Your task to perform on an android device: delete a single message in the gmail app Image 0: 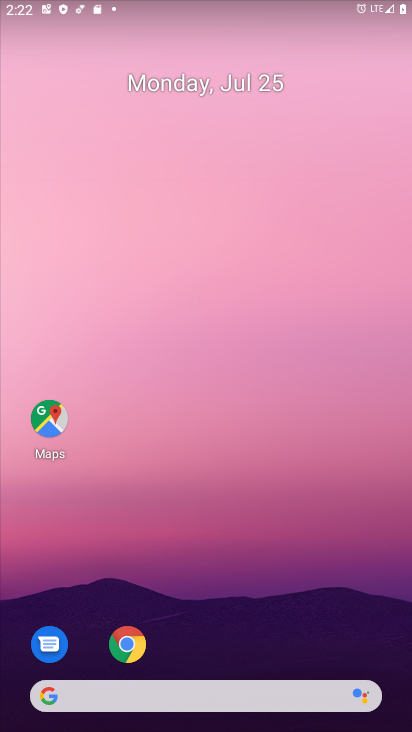
Step 0: drag from (347, 648) to (134, 74)
Your task to perform on an android device: delete a single message in the gmail app Image 1: 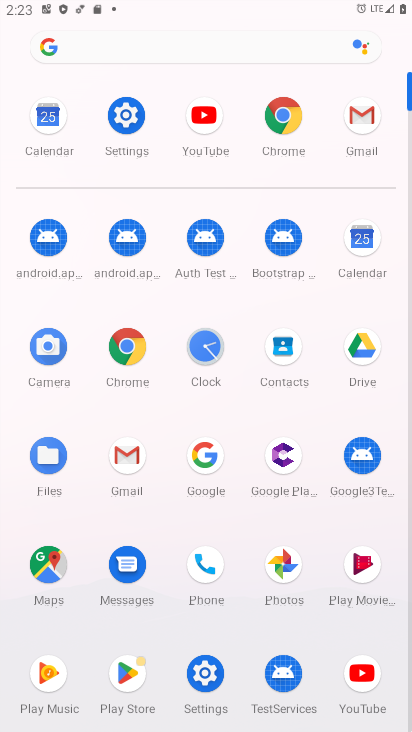
Step 1: click (121, 450)
Your task to perform on an android device: delete a single message in the gmail app Image 2: 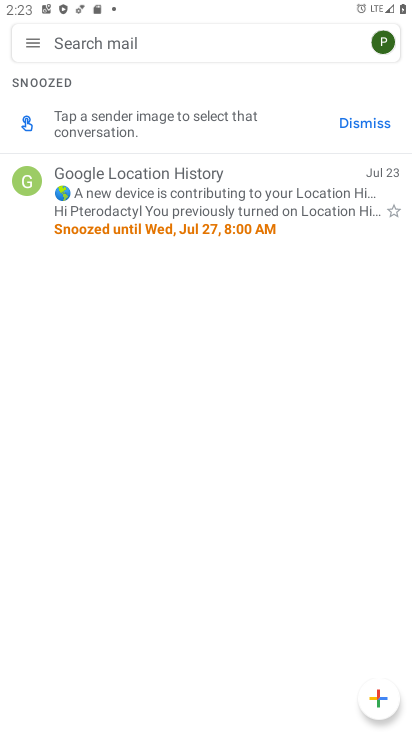
Step 2: click (113, 197)
Your task to perform on an android device: delete a single message in the gmail app Image 3: 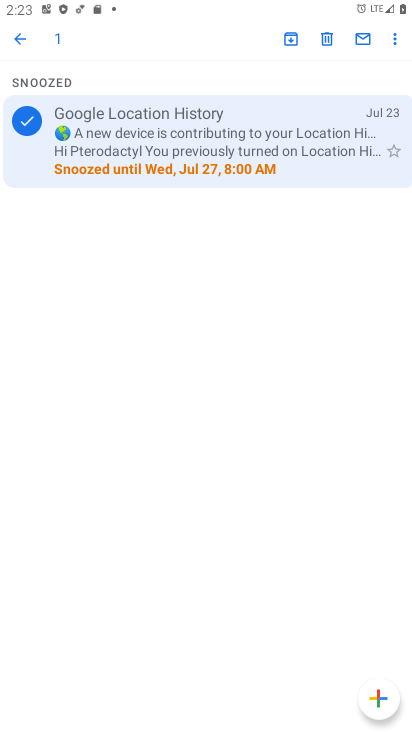
Step 3: click (324, 43)
Your task to perform on an android device: delete a single message in the gmail app Image 4: 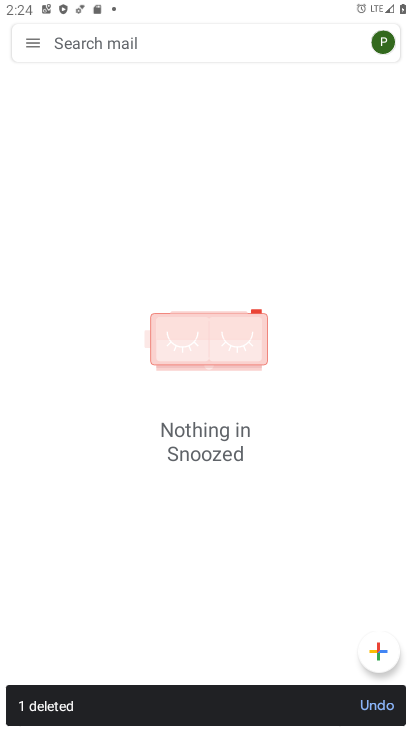
Step 4: task complete